Your task to perform on an android device: check battery use Image 0: 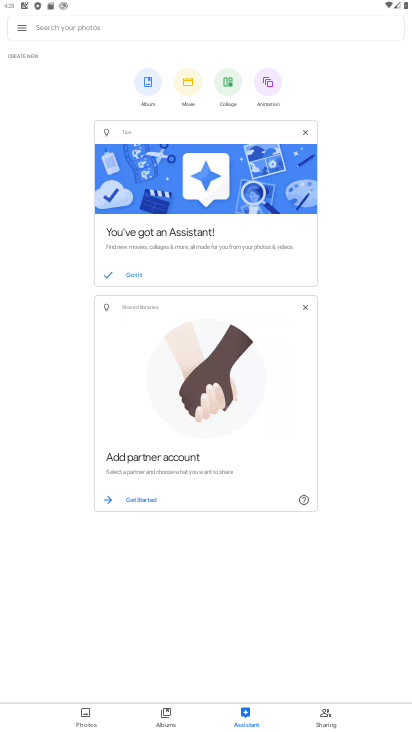
Step 0: press home button
Your task to perform on an android device: check battery use Image 1: 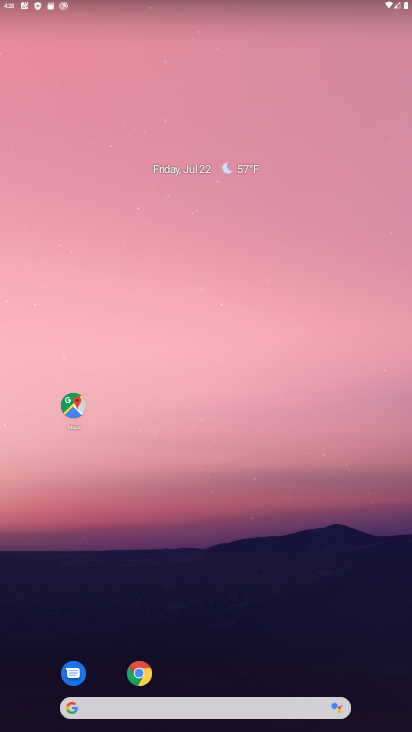
Step 1: drag from (319, 632) to (218, 91)
Your task to perform on an android device: check battery use Image 2: 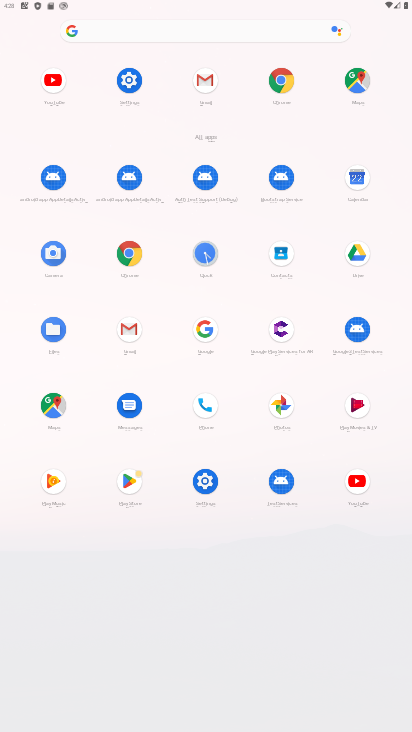
Step 2: click (201, 475)
Your task to perform on an android device: check battery use Image 3: 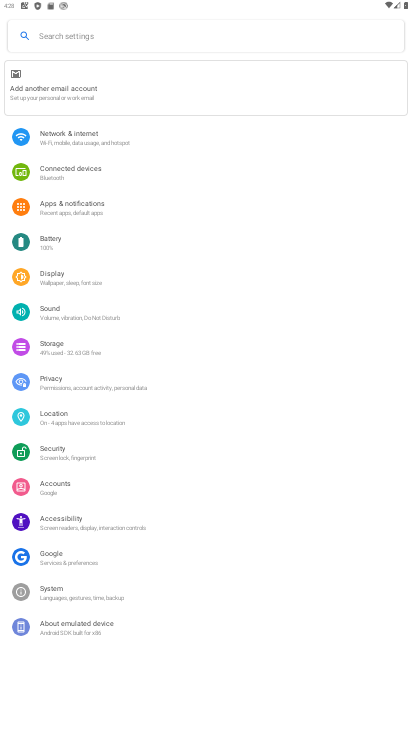
Step 3: click (74, 244)
Your task to perform on an android device: check battery use Image 4: 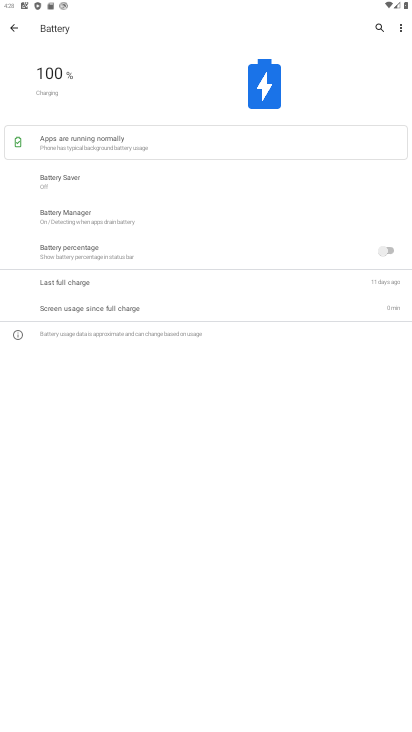
Step 4: click (402, 22)
Your task to perform on an android device: check battery use Image 5: 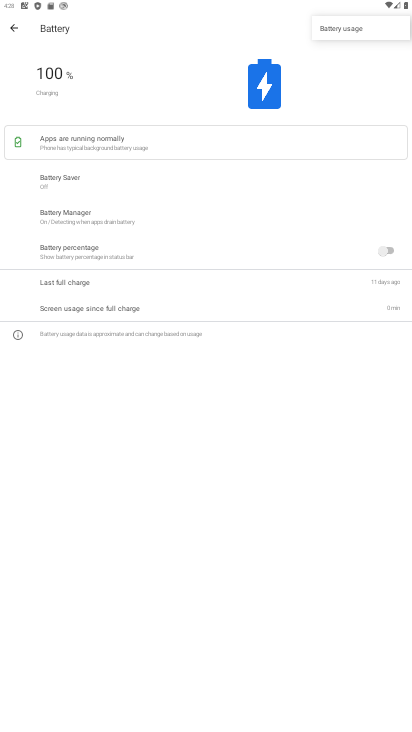
Step 5: click (353, 29)
Your task to perform on an android device: check battery use Image 6: 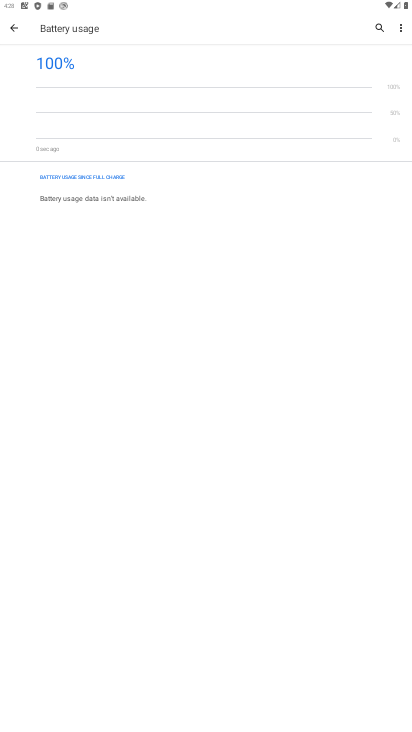
Step 6: task complete